Your task to perform on an android device: What's the news in Cambodia? Image 0: 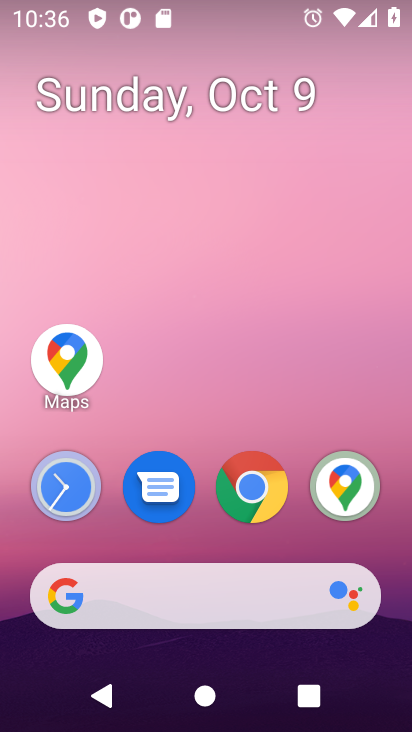
Step 0: drag from (209, 558) to (211, 56)
Your task to perform on an android device: What's the news in Cambodia? Image 1: 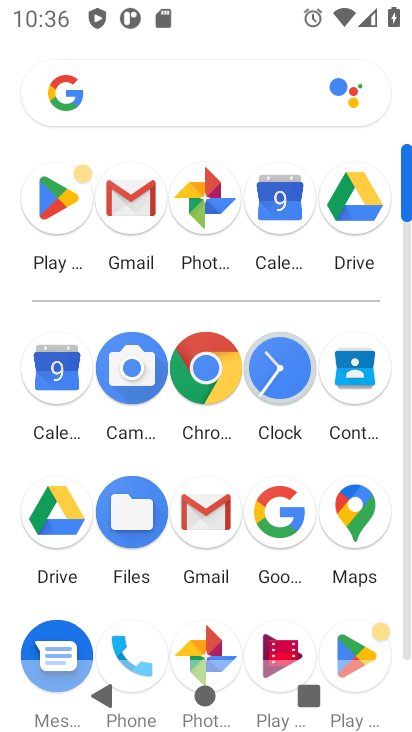
Step 1: click (201, 363)
Your task to perform on an android device: What's the news in Cambodia? Image 2: 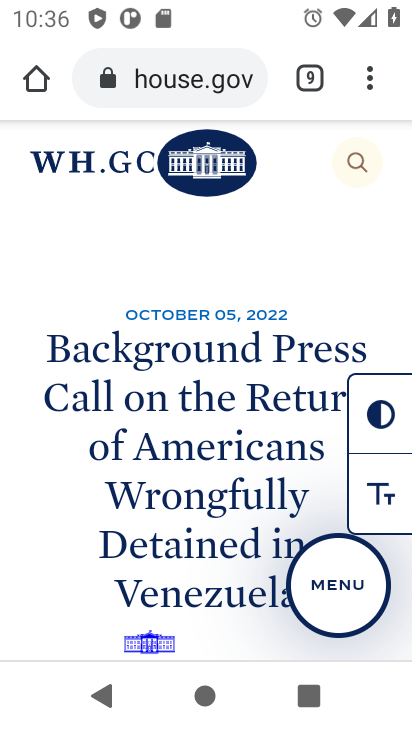
Step 2: drag from (369, 84) to (112, 151)
Your task to perform on an android device: What's the news in Cambodia? Image 3: 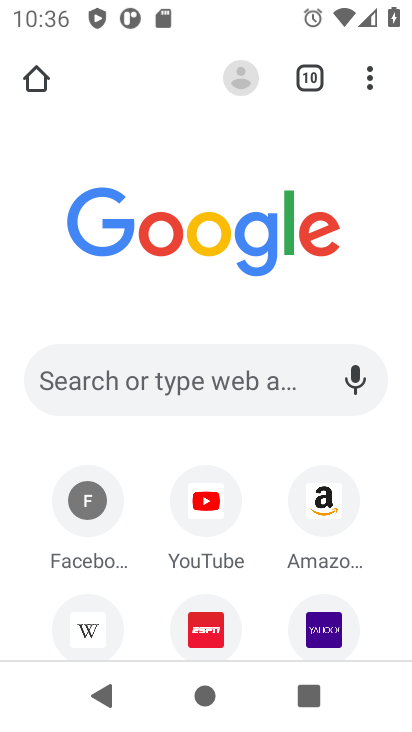
Step 3: click (159, 388)
Your task to perform on an android device: What's the news in Cambodia? Image 4: 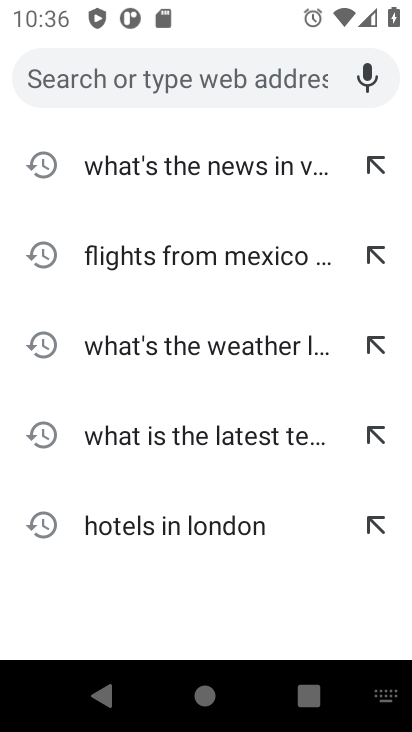
Step 4: type "What's the news in Cambodia?"
Your task to perform on an android device: What's the news in Cambodia? Image 5: 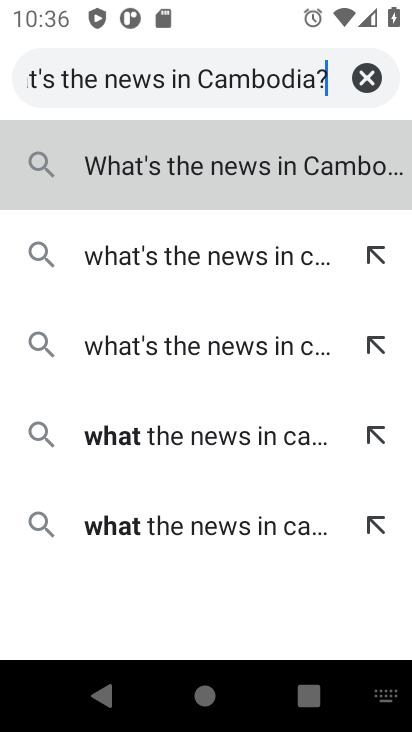
Step 5: click (232, 183)
Your task to perform on an android device: What's the news in Cambodia? Image 6: 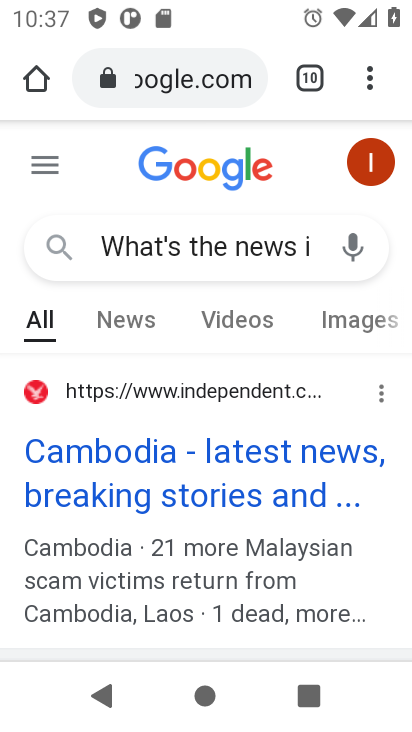
Step 6: click (141, 321)
Your task to perform on an android device: What's the news in Cambodia? Image 7: 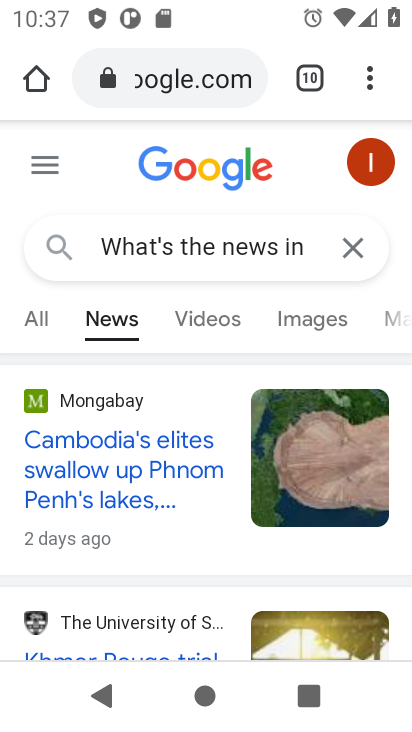
Step 7: task complete